Your task to perform on an android device: Clear the shopping cart on walmart. Search for "logitech g910" on walmart, select the first entry, and add it to the cart. Image 0: 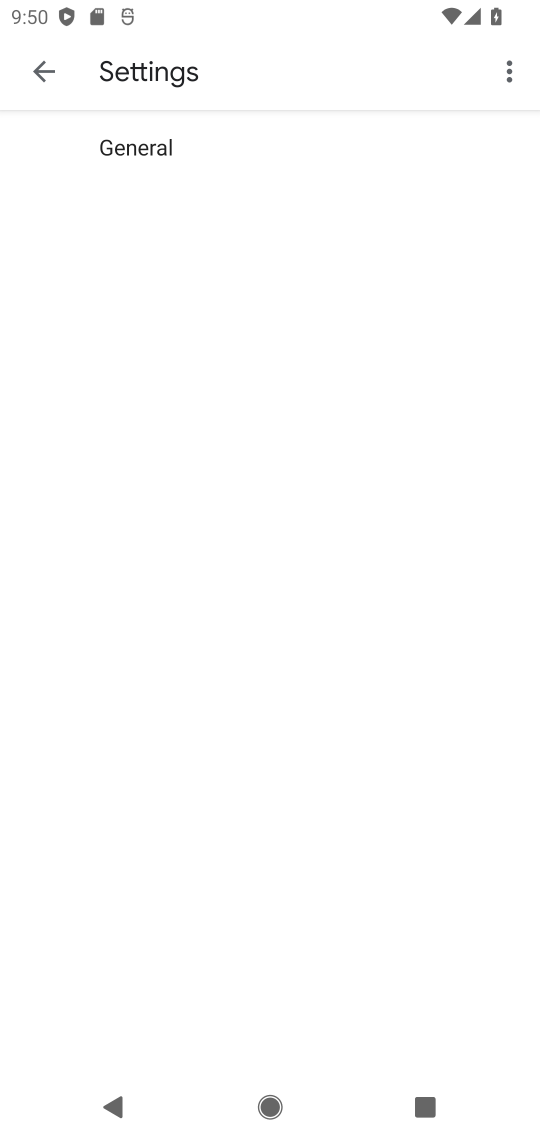
Step 0: press home button
Your task to perform on an android device: Clear the shopping cart on walmart. Search for "logitech g910" on walmart, select the first entry, and add it to the cart. Image 1: 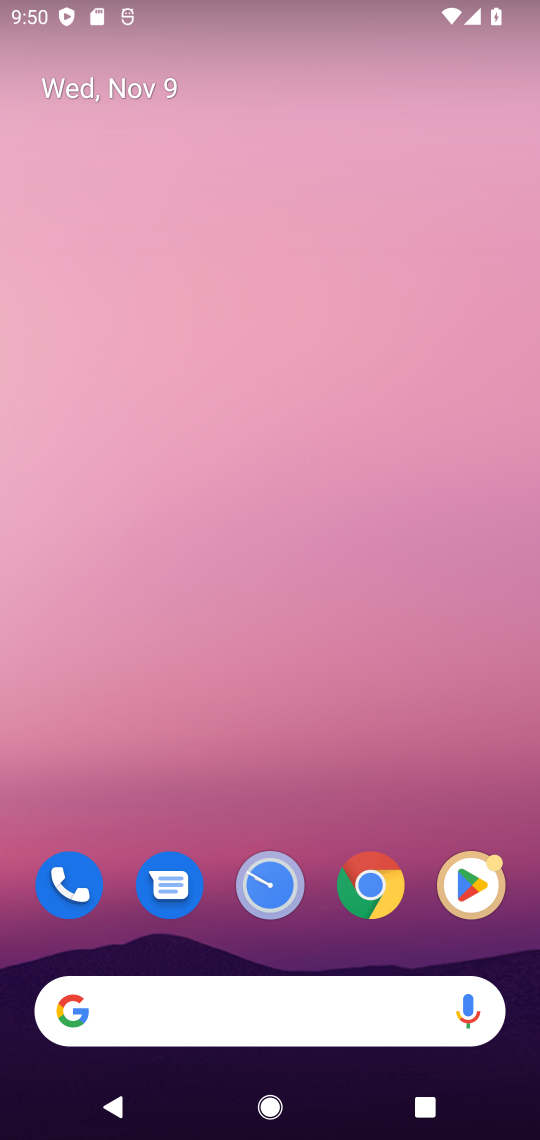
Step 1: click (353, 888)
Your task to perform on an android device: Clear the shopping cart on walmart. Search for "logitech g910" on walmart, select the first entry, and add it to the cart. Image 2: 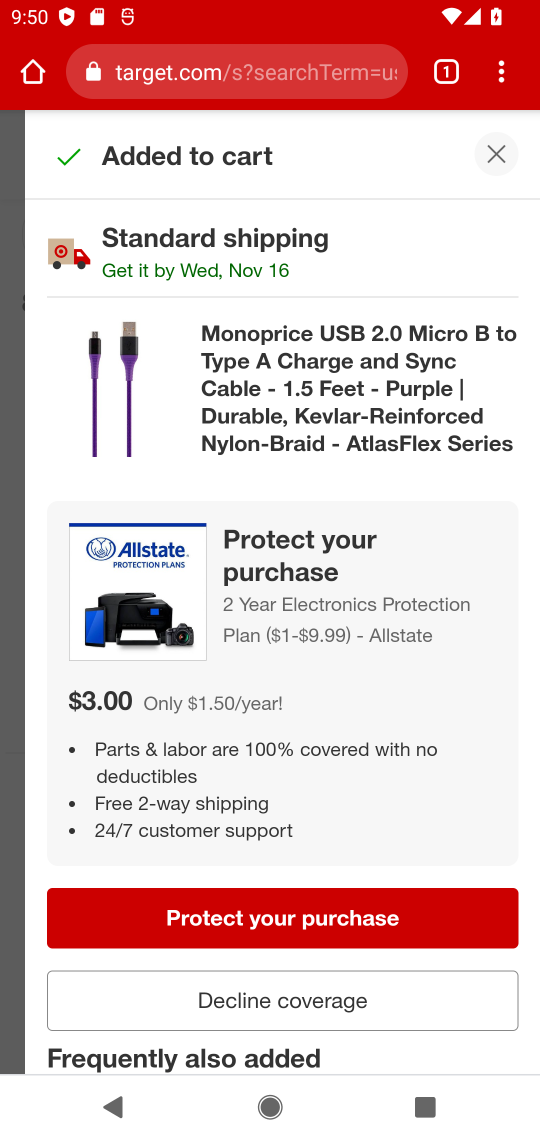
Step 2: click (442, 74)
Your task to perform on an android device: Clear the shopping cart on walmart. Search for "logitech g910" on walmart, select the first entry, and add it to the cart. Image 3: 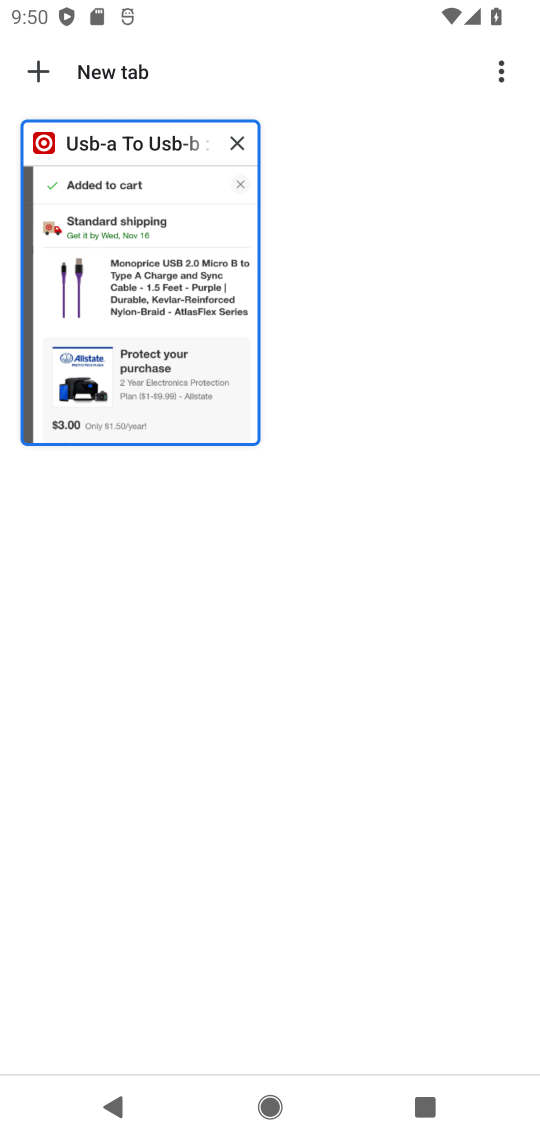
Step 3: click (41, 68)
Your task to perform on an android device: Clear the shopping cart on walmart. Search for "logitech g910" on walmart, select the first entry, and add it to the cart. Image 4: 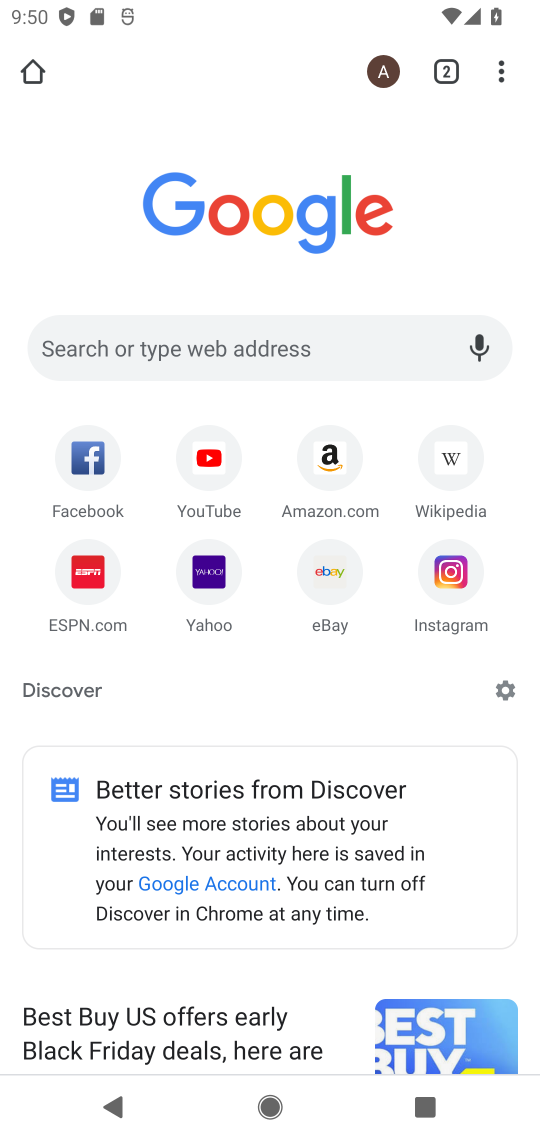
Step 4: click (242, 348)
Your task to perform on an android device: Clear the shopping cart on walmart. Search for "logitech g910" on walmart, select the first entry, and add it to the cart. Image 5: 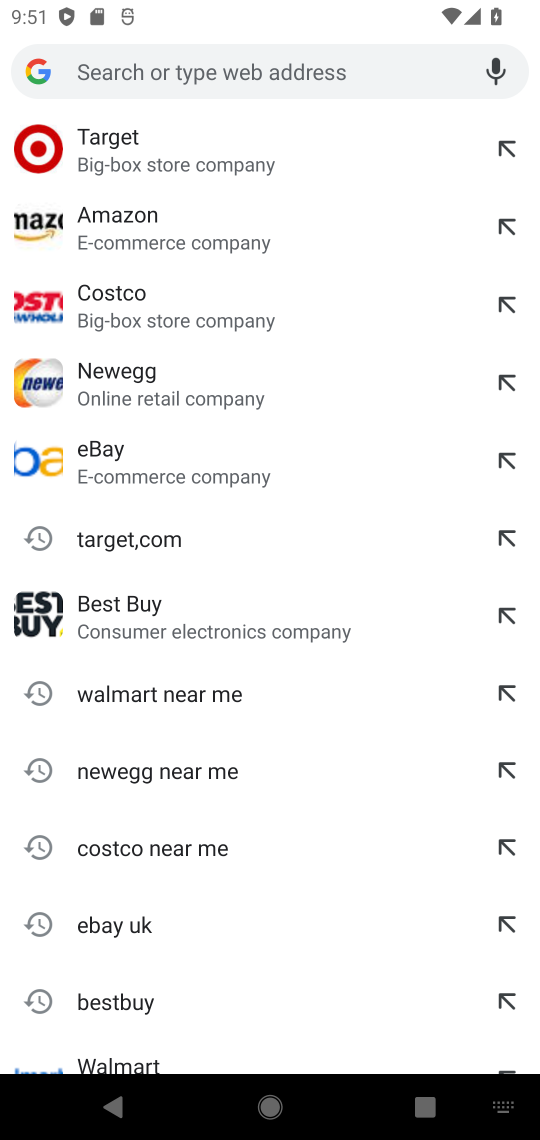
Step 5: type "walmart"
Your task to perform on an android device: Clear the shopping cart on walmart. Search for "logitech g910" on walmart, select the first entry, and add it to the cart. Image 6: 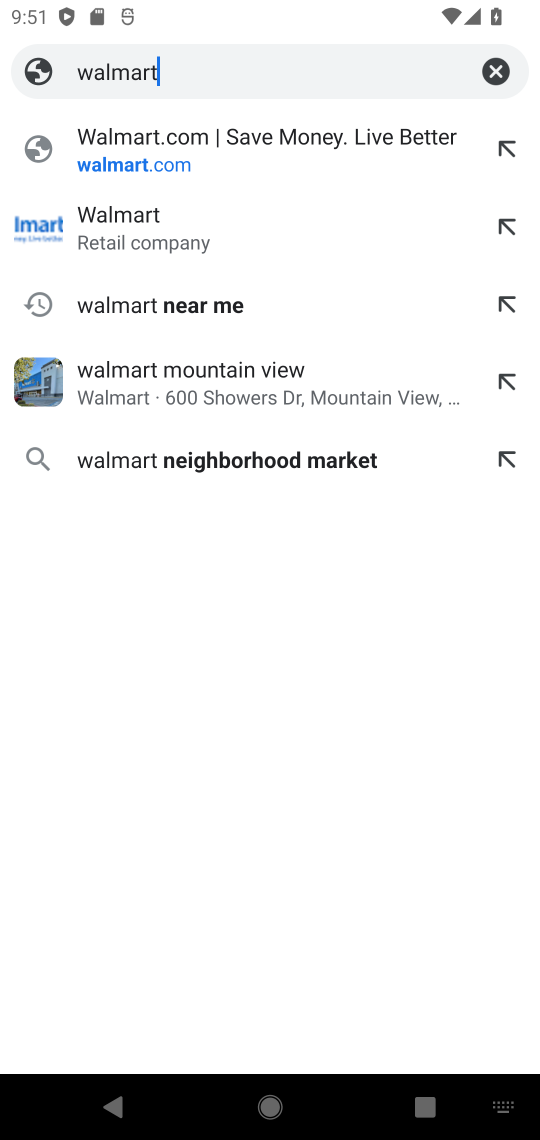
Step 6: click (80, 147)
Your task to perform on an android device: Clear the shopping cart on walmart. Search for "logitech g910" on walmart, select the first entry, and add it to the cart. Image 7: 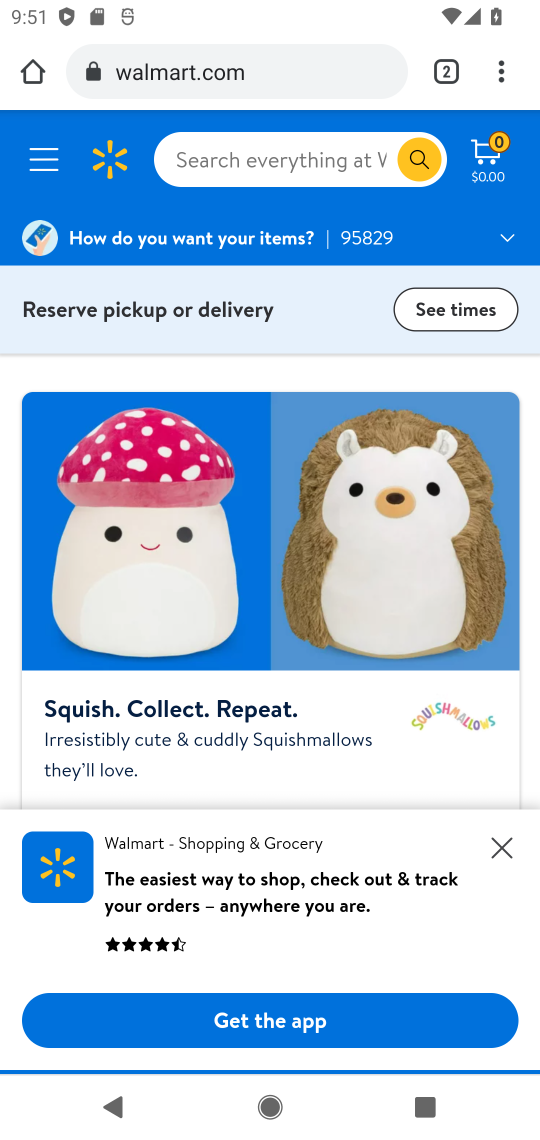
Step 7: click (260, 147)
Your task to perform on an android device: Clear the shopping cart on walmart. Search for "logitech g910" on walmart, select the first entry, and add it to the cart. Image 8: 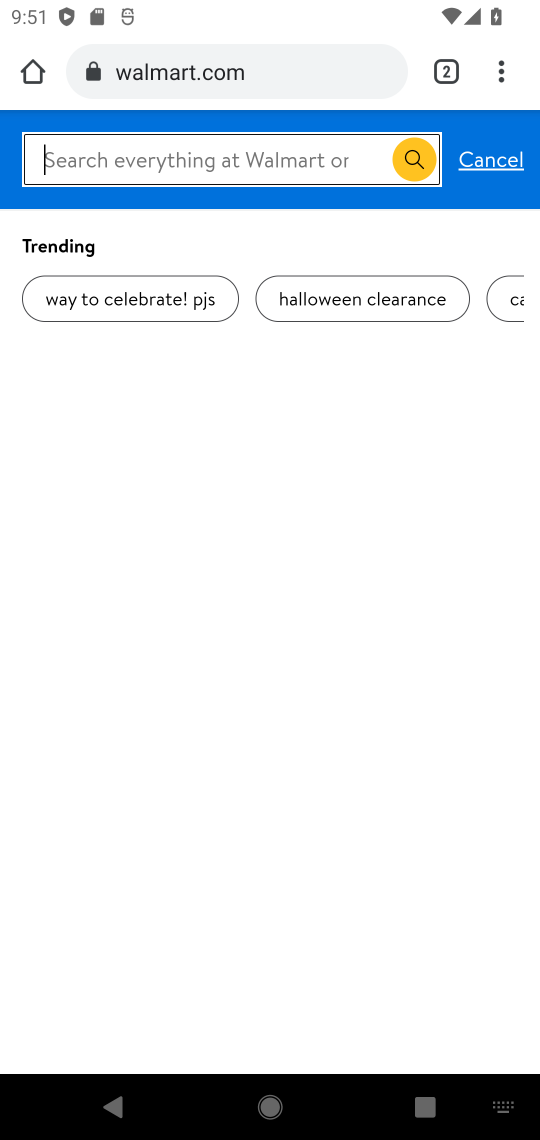
Step 8: type "logitech g910"
Your task to perform on an android device: Clear the shopping cart on walmart. Search for "logitech g910" on walmart, select the first entry, and add it to the cart. Image 9: 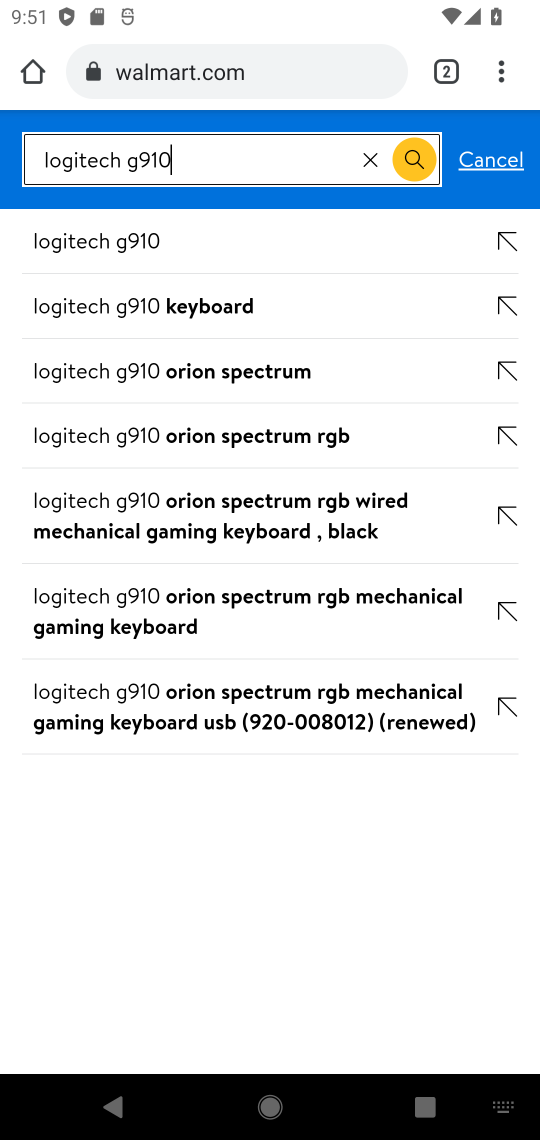
Step 9: click (149, 304)
Your task to perform on an android device: Clear the shopping cart on walmart. Search for "logitech g910" on walmart, select the first entry, and add it to the cart. Image 10: 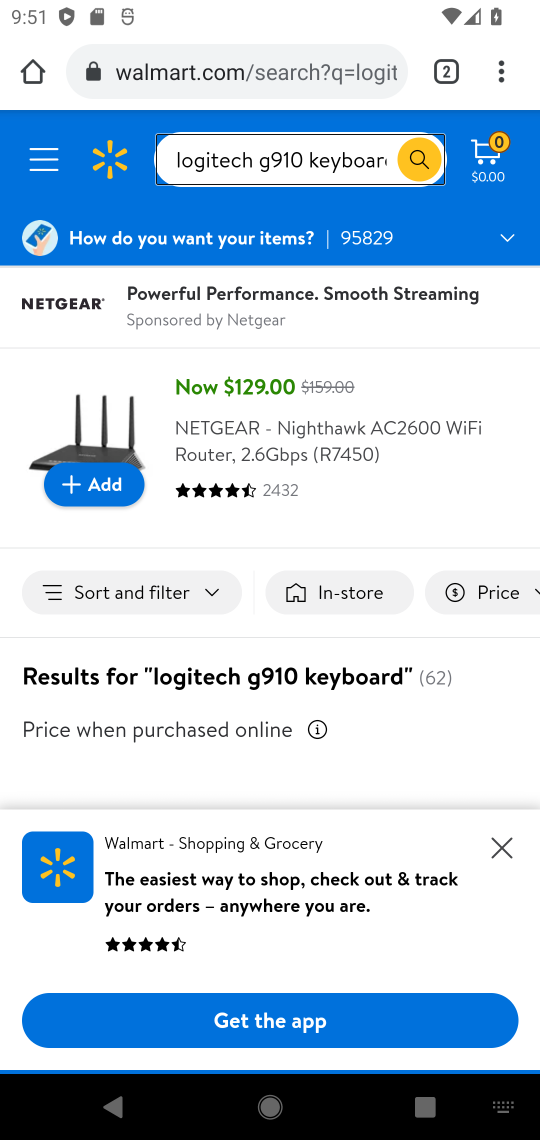
Step 10: click (498, 846)
Your task to perform on an android device: Clear the shopping cart on walmart. Search for "logitech g910" on walmart, select the first entry, and add it to the cart. Image 11: 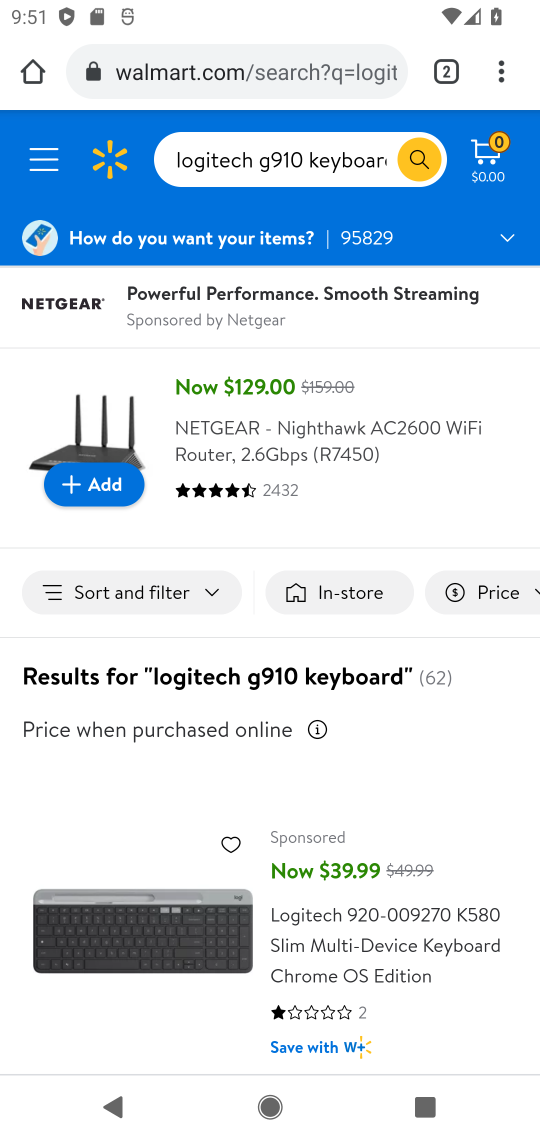
Step 11: drag from (434, 983) to (420, 635)
Your task to perform on an android device: Clear the shopping cart on walmart. Search for "logitech g910" on walmart, select the first entry, and add it to the cart. Image 12: 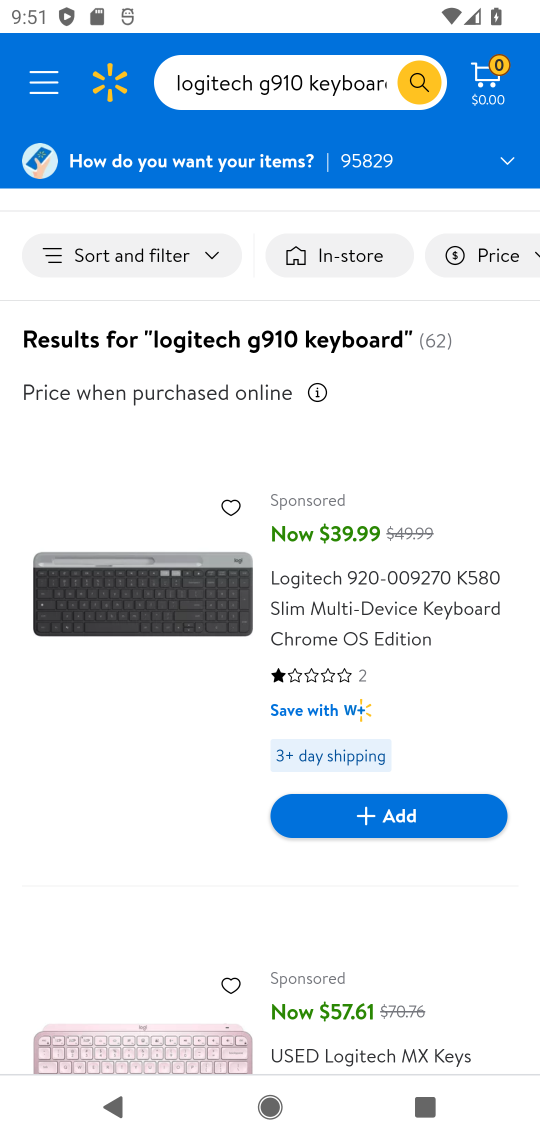
Step 12: click (397, 820)
Your task to perform on an android device: Clear the shopping cart on walmart. Search for "logitech g910" on walmart, select the first entry, and add it to the cart. Image 13: 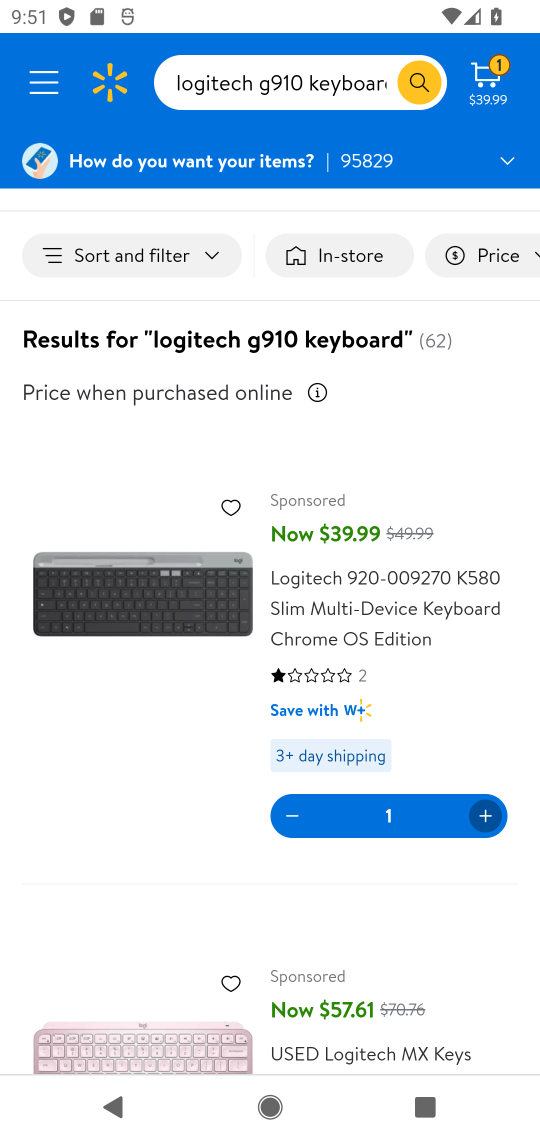
Step 13: task complete